Your task to perform on an android device: change alarm snooze length Image 0: 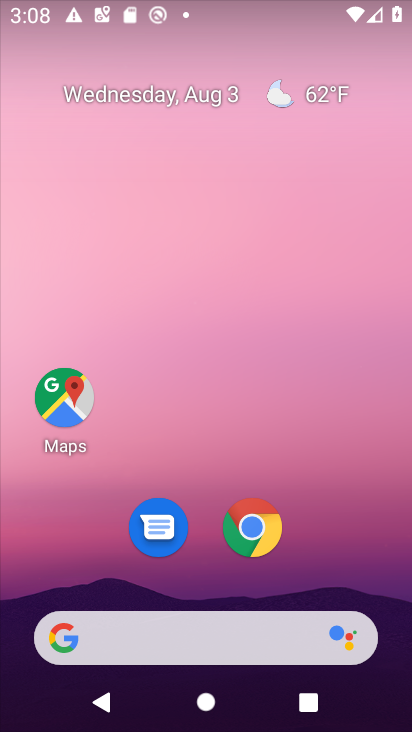
Step 0: drag from (342, 550) to (221, 95)
Your task to perform on an android device: change alarm snooze length Image 1: 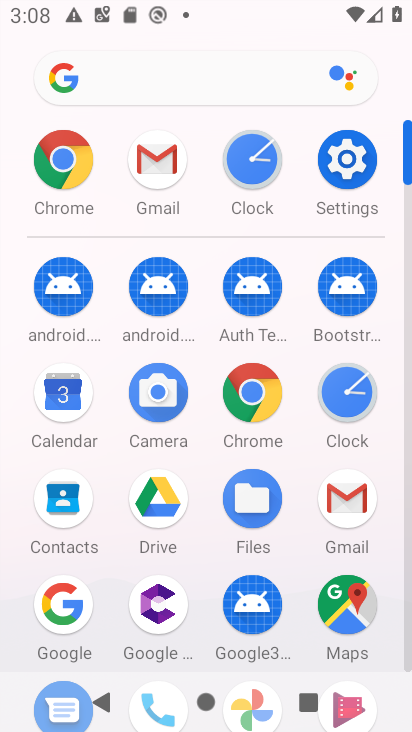
Step 1: click (355, 385)
Your task to perform on an android device: change alarm snooze length Image 2: 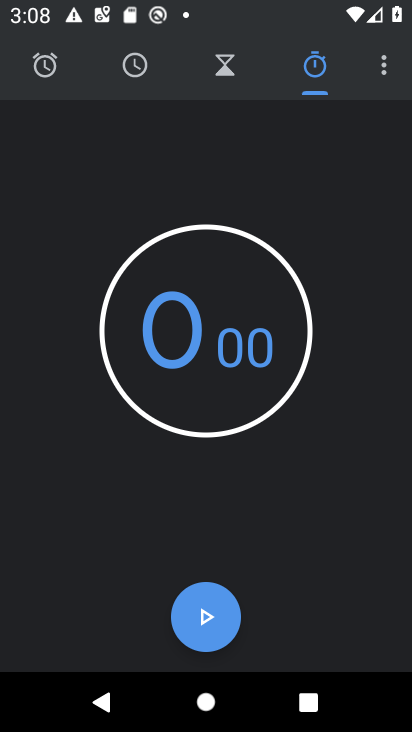
Step 2: click (392, 65)
Your task to perform on an android device: change alarm snooze length Image 3: 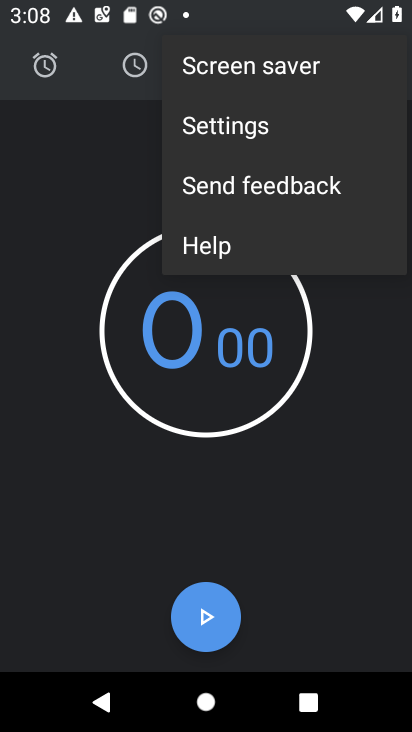
Step 3: click (282, 131)
Your task to perform on an android device: change alarm snooze length Image 4: 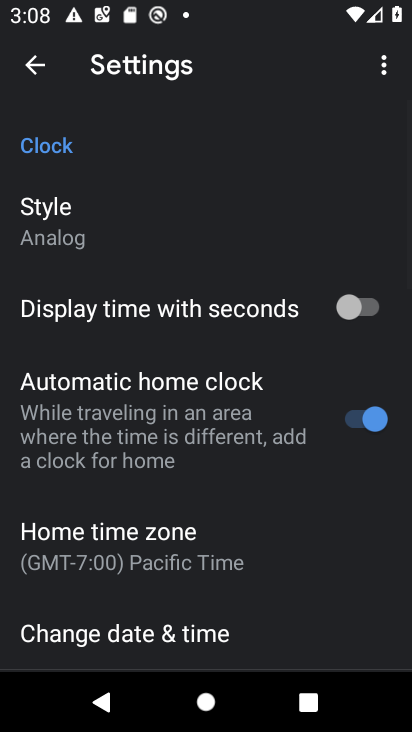
Step 4: drag from (318, 565) to (241, 80)
Your task to perform on an android device: change alarm snooze length Image 5: 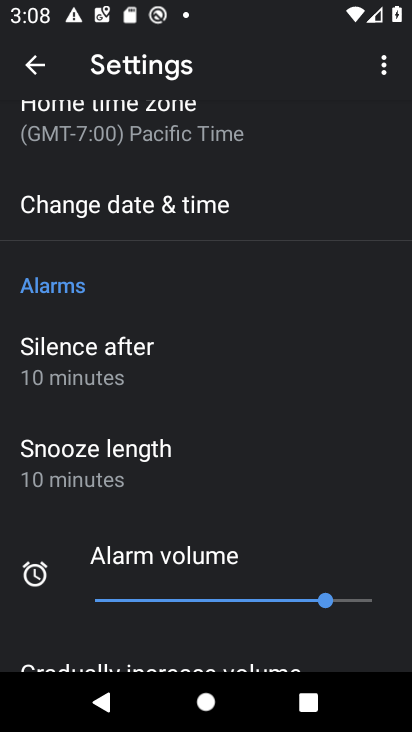
Step 5: click (142, 455)
Your task to perform on an android device: change alarm snooze length Image 6: 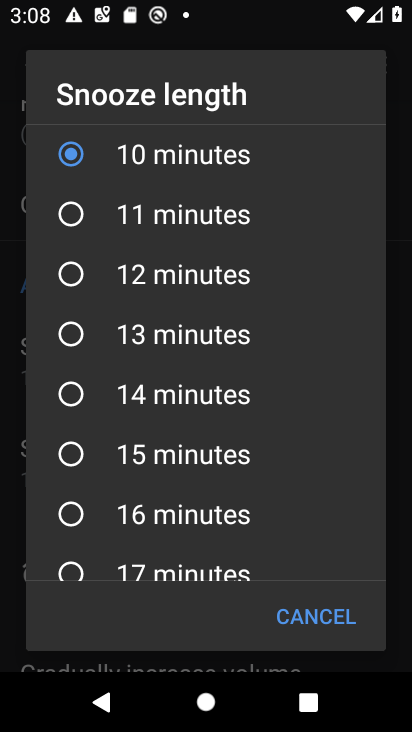
Step 6: click (180, 211)
Your task to perform on an android device: change alarm snooze length Image 7: 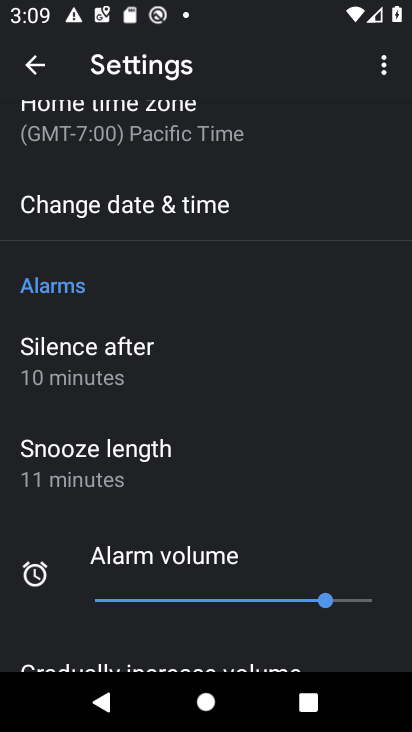
Step 7: task complete